Your task to perform on an android device: change notifications settings Image 0: 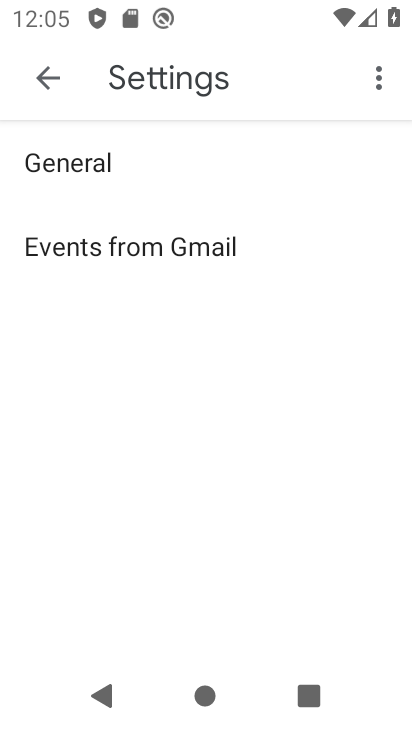
Step 0: press home button
Your task to perform on an android device: change notifications settings Image 1: 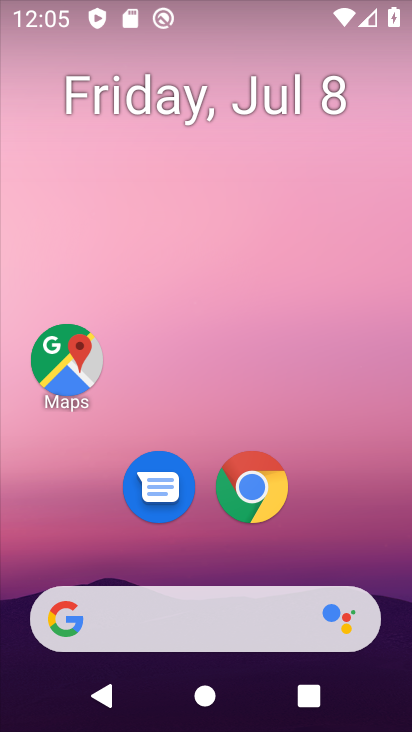
Step 1: drag from (375, 527) to (374, 175)
Your task to perform on an android device: change notifications settings Image 2: 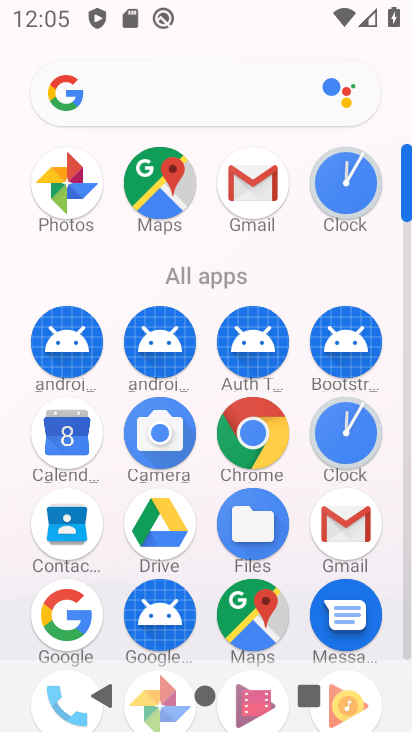
Step 2: drag from (395, 465) to (396, 187)
Your task to perform on an android device: change notifications settings Image 3: 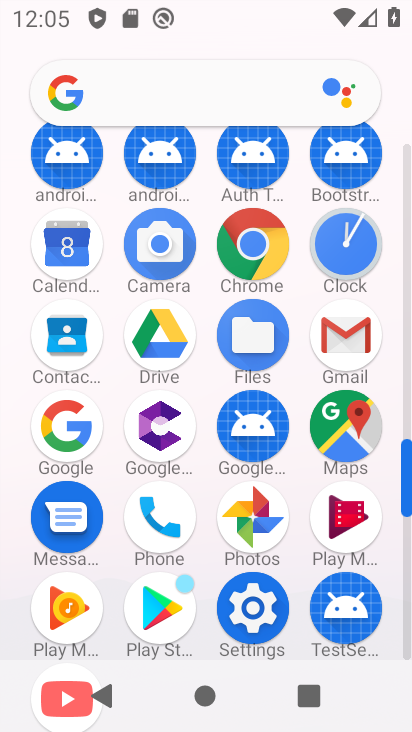
Step 3: click (257, 604)
Your task to perform on an android device: change notifications settings Image 4: 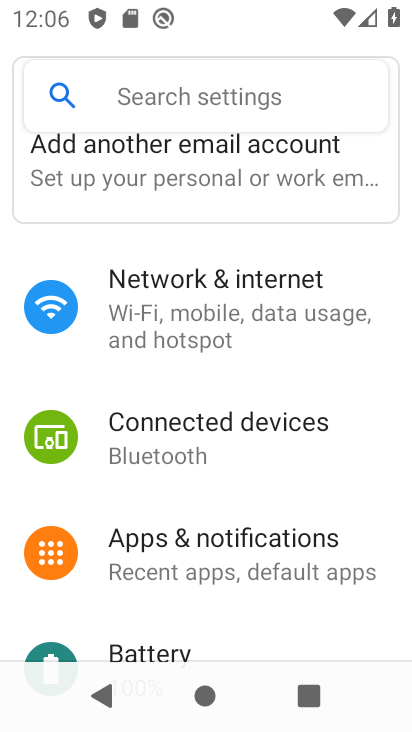
Step 4: drag from (365, 646) to (382, 421)
Your task to perform on an android device: change notifications settings Image 5: 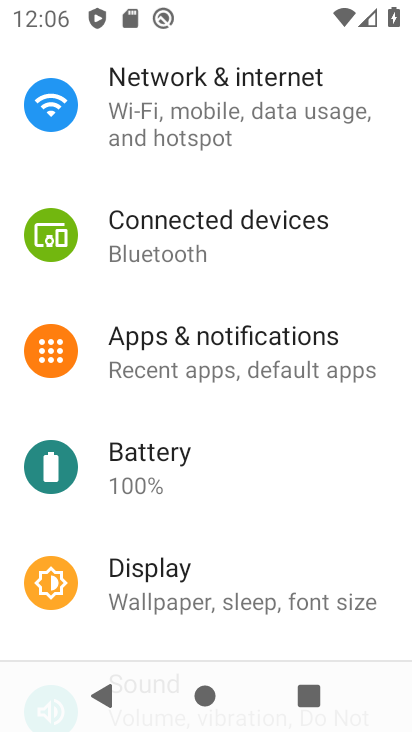
Step 5: drag from (370, 632) to (374, 437)
Your task to perform on an android device: change notifications settings Image 6: 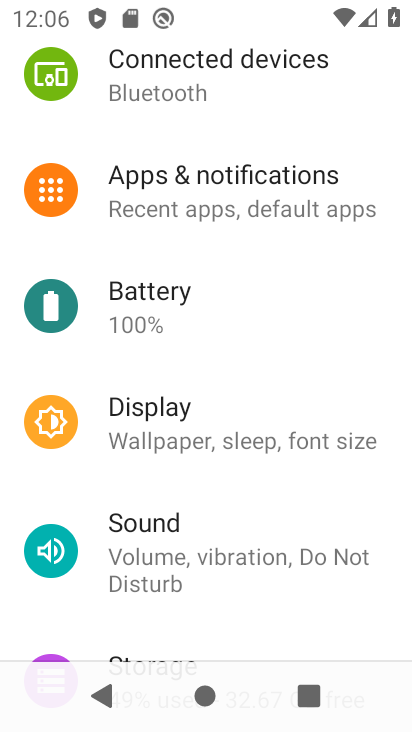
Step 6: click (250, 199)
Your task to perform on an android device: change notifications settings Image 7: 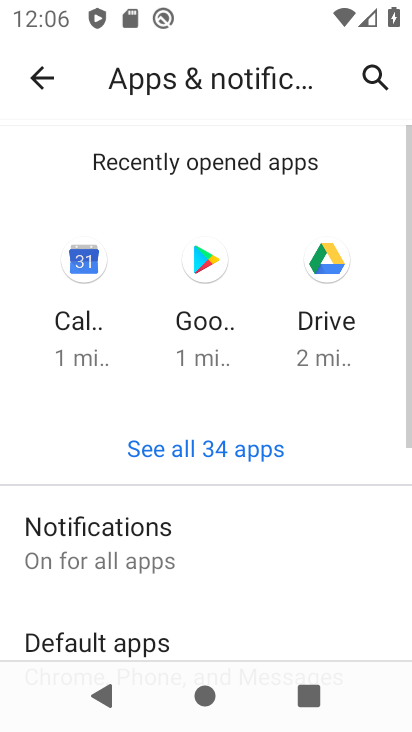
Step 7: drag from (311, 595) to (313, 442)
Your task to perform on an android device: change notifications settings Image 8: 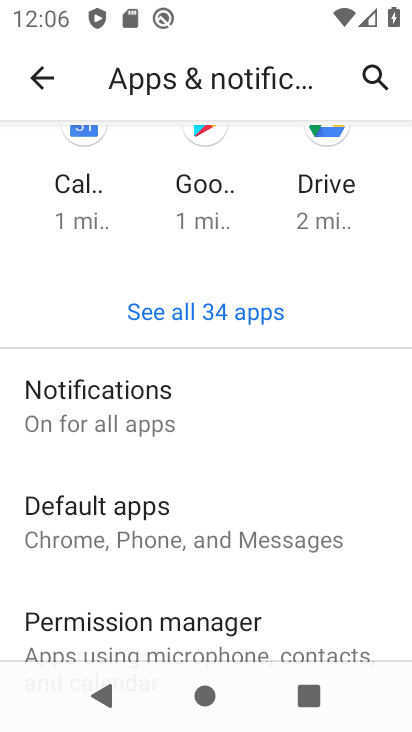
Step 8: drag from (336, 603) to (345, 423)
Your task to perform on an android device: change notifications settings Image 9: 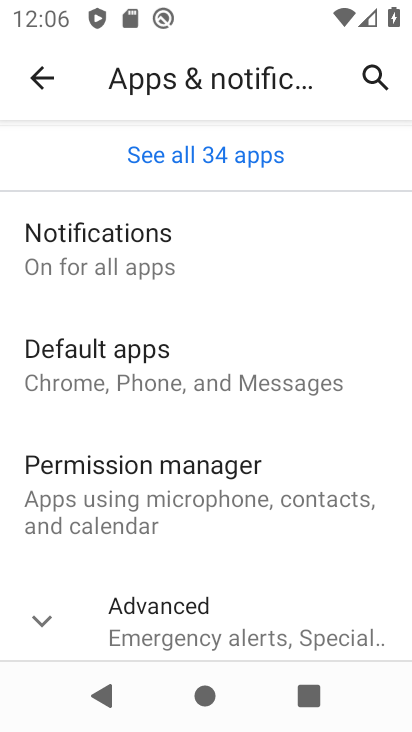
Step 9: click (164, 258)
Your task to perform on an android device: change notifications settings Image 10: 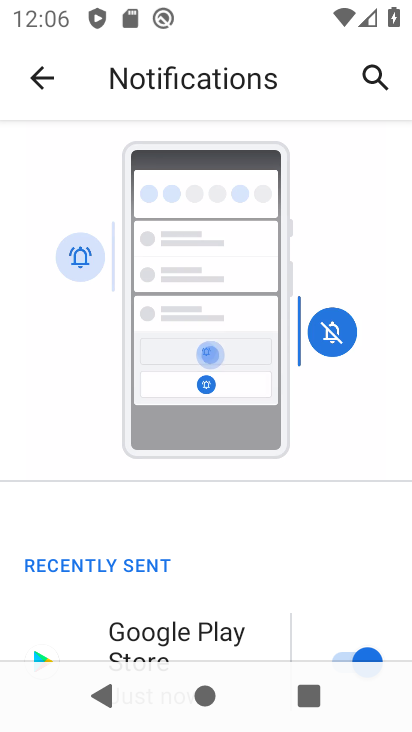
Step 10: drag from (335, 527) to (336, 329)
Your task to perform on an android device: change notifications settings Image 11: 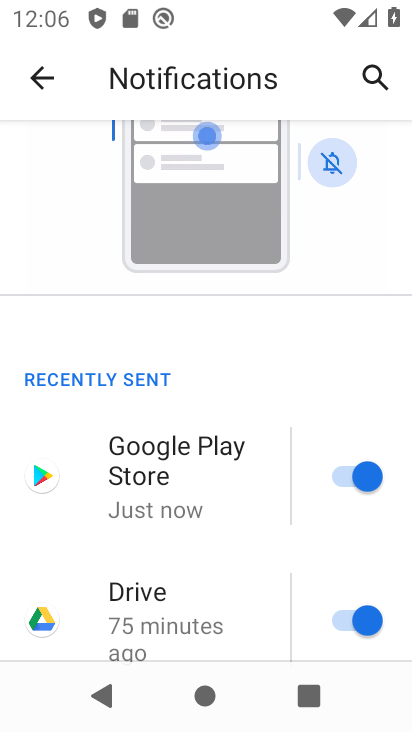
Step 11: drag from (324, 575) to (329, 377)
Your task to perform on an android device: change notifications settings Image 12: 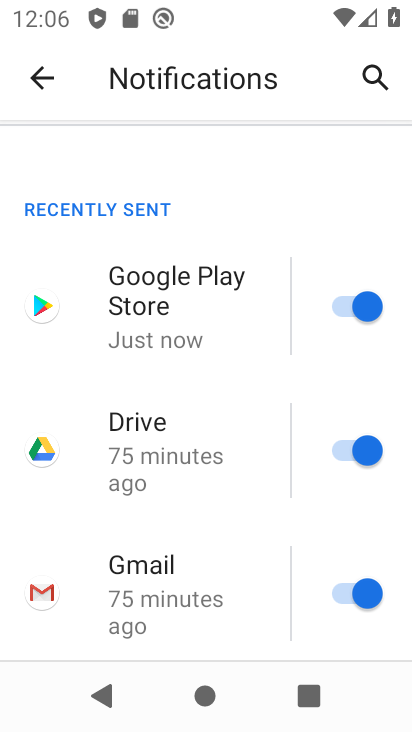
Step 12: drag from (306, 630) to (299, 426)
Your task to perform on an android device: change notifications settings Image 13: 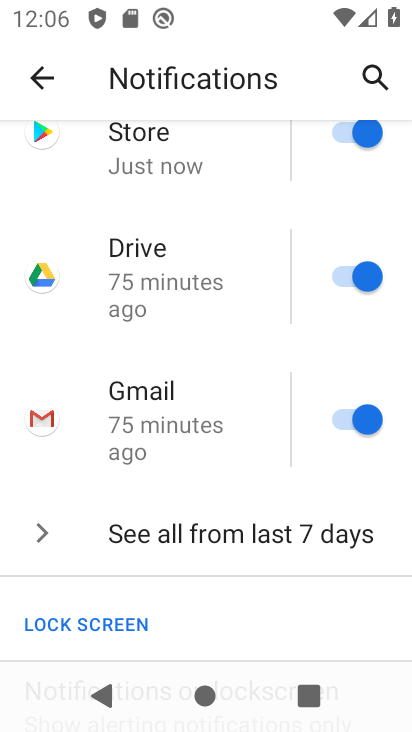
Step 13: drag from (295, 585) to (302, 377)
Your task to perform on an android device: change notifications settings Image 14: 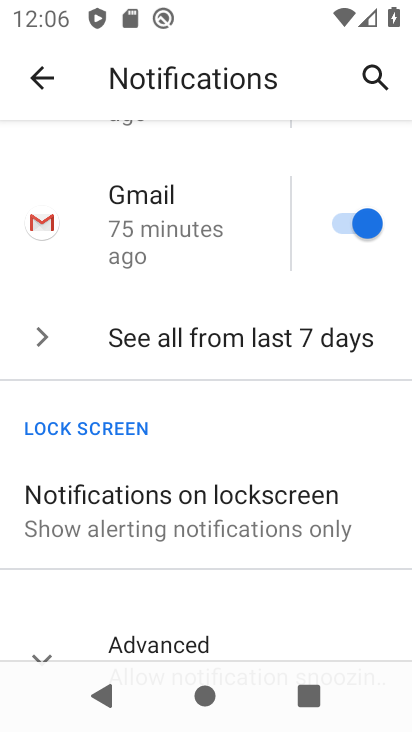
Step 14: drag from (300, 571) to (300, 441)
Your task to perform on an android device: change notifications settings Image 15: 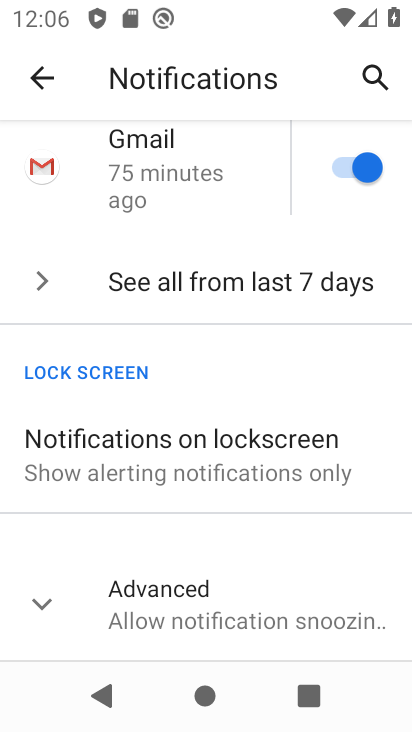
Step 15: drag from (267, 181) to (270, 429)
Your task to perform on an android device: change notifications settings Image 16: 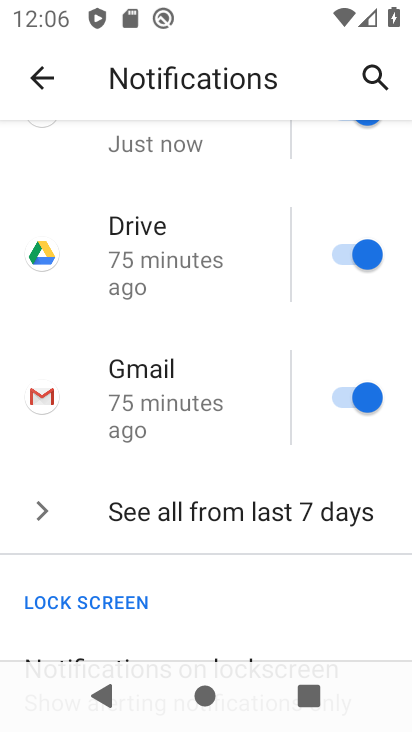
Step 16: click (350, 395)
Your task to perform on an android device: change notifications settings Image 17: 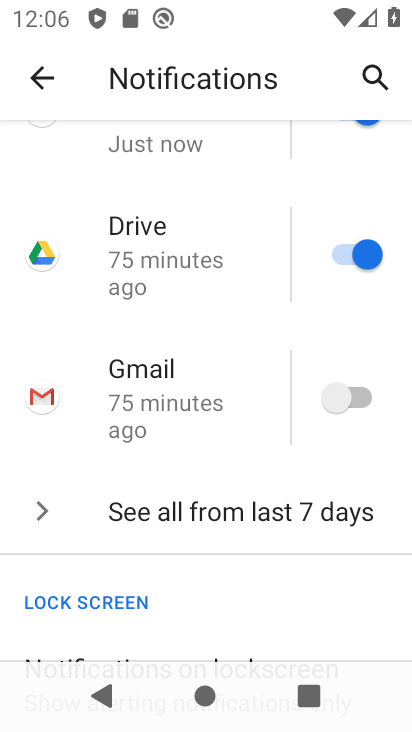
Step 17: click (355, 257)
Your task to perform on an android device: change notifications settings Image 18: 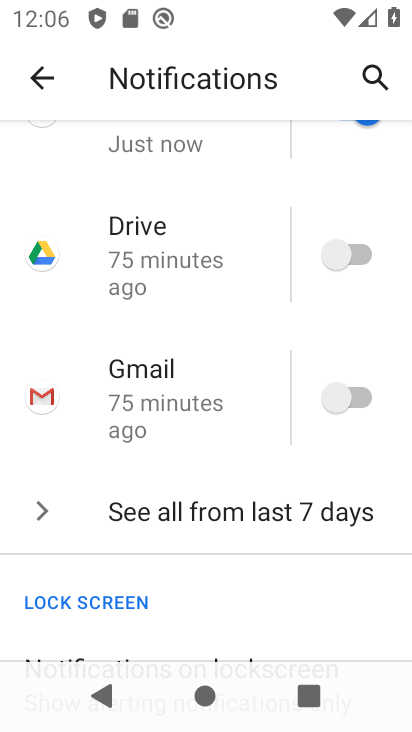
Step 18: drag from (258, 196) to (249, 368)
Your task to perform on an android device: change notifications settings Image 19: 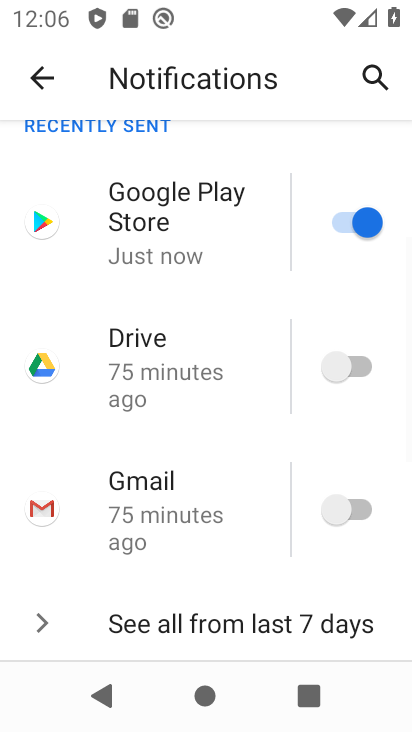
Step 19: click (348, 223)
Your task to perform on an android device: change notifications settings Image 20: 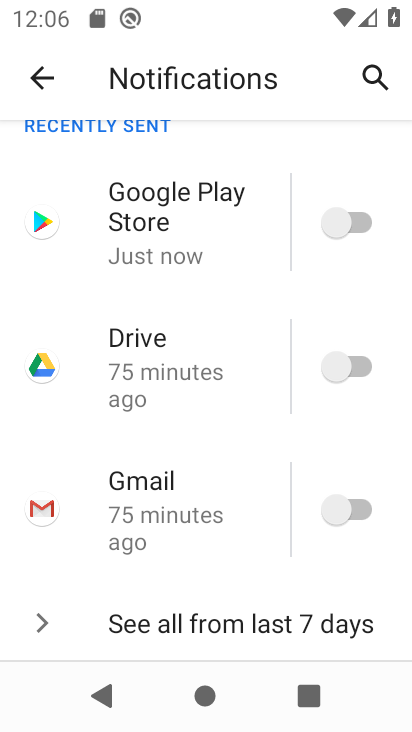
Step 20: task complete